Your task to perform on an android device: open app "Etsy: Buy & Sell Unique Items" (install if not already installed) and go to login screen Image 0: 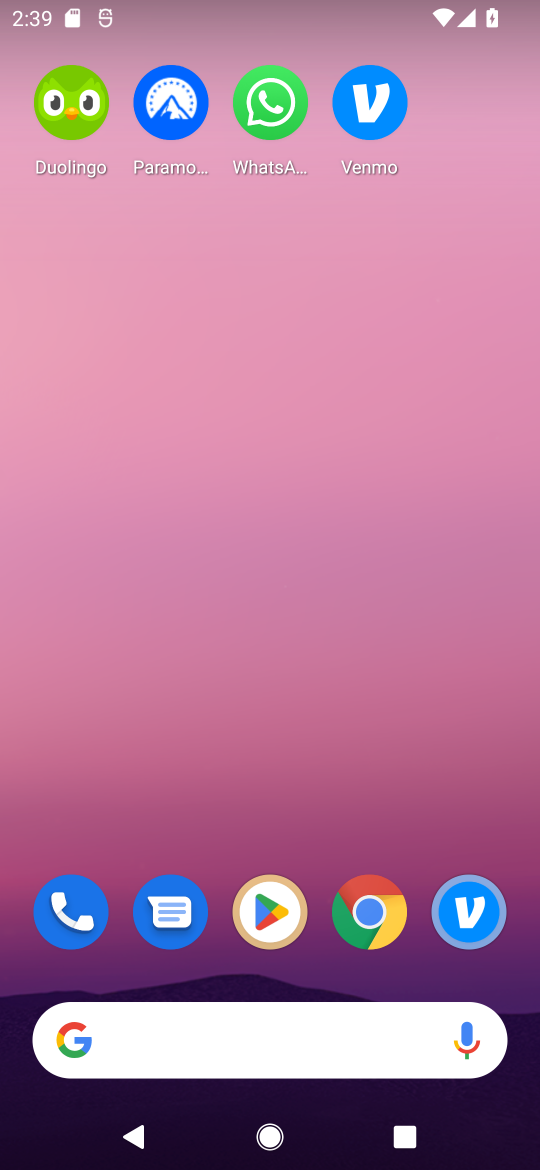
Step 0: drag from (259, 1019) to (288, 475)
Your task to perform on an android device: open app "Etsy: Buy & Sell Unique Items" (install if not already installed) and go to login screen Image 1: 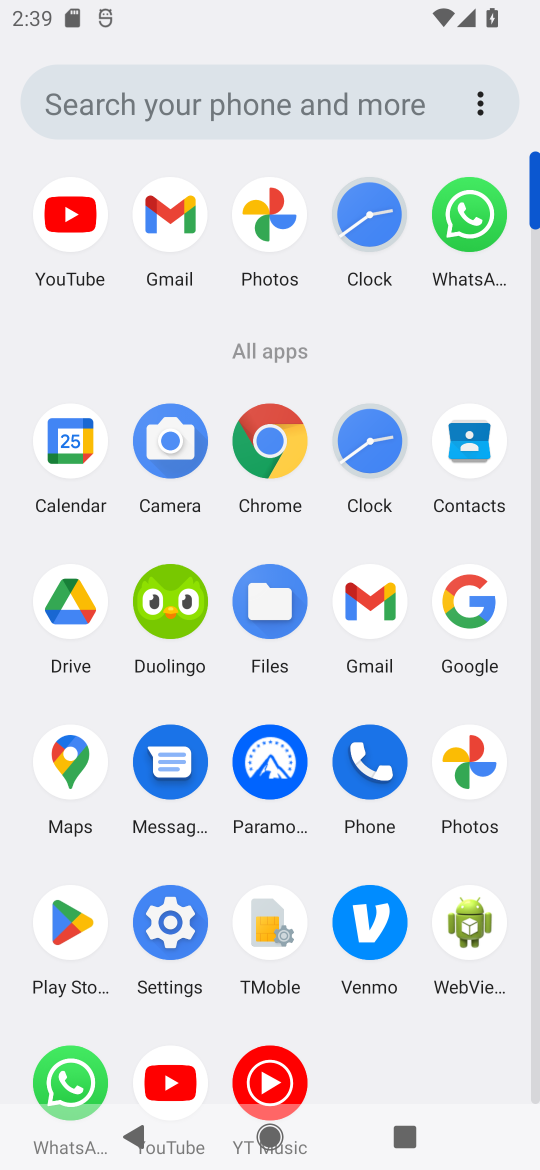
Step 1: click (65, 937)
Your task to perform on an android device: open app "Etsy: Buy & Sell Unique Items" (install if not already installed) and go to login screen Image 2: 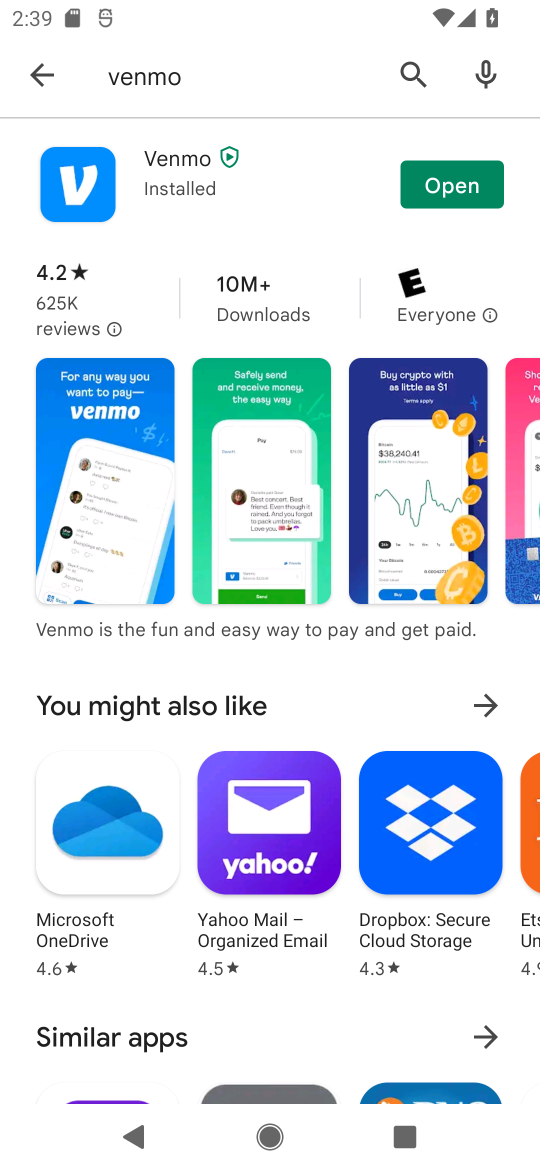
Step 2: click (413, 74)
Your task to perform on an android device: open app "Etsy: Buy & Sell Unique Items" (install if not already installed) and go to login screen Image 3: 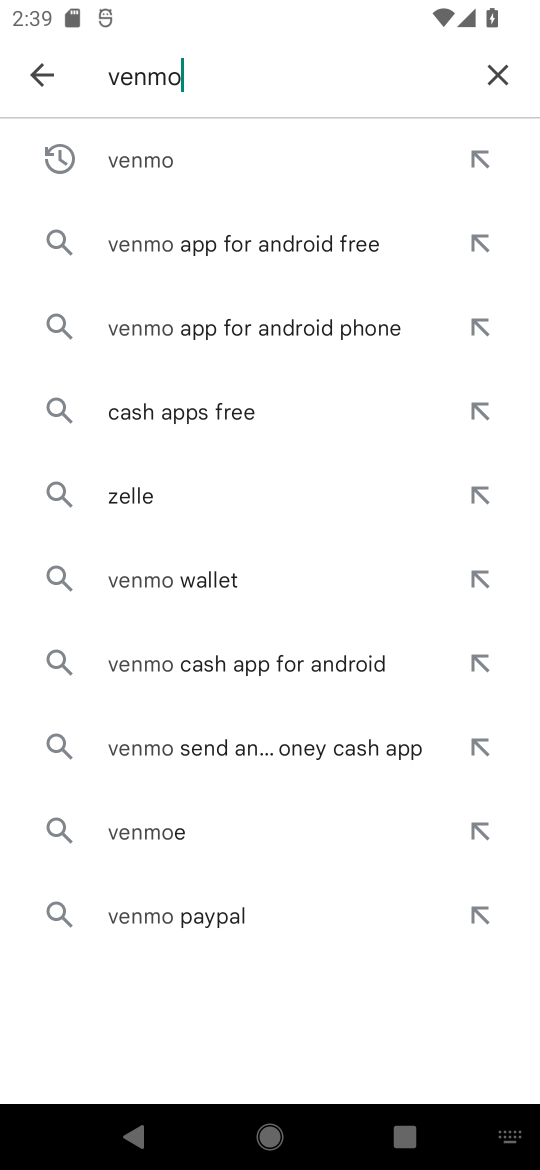
Step 3: click (498, 76)
Your task to perform on an android device: open app "Etsy: Buy & Sell Unique Items" (install if not already installed) and go to login screen Image 4: 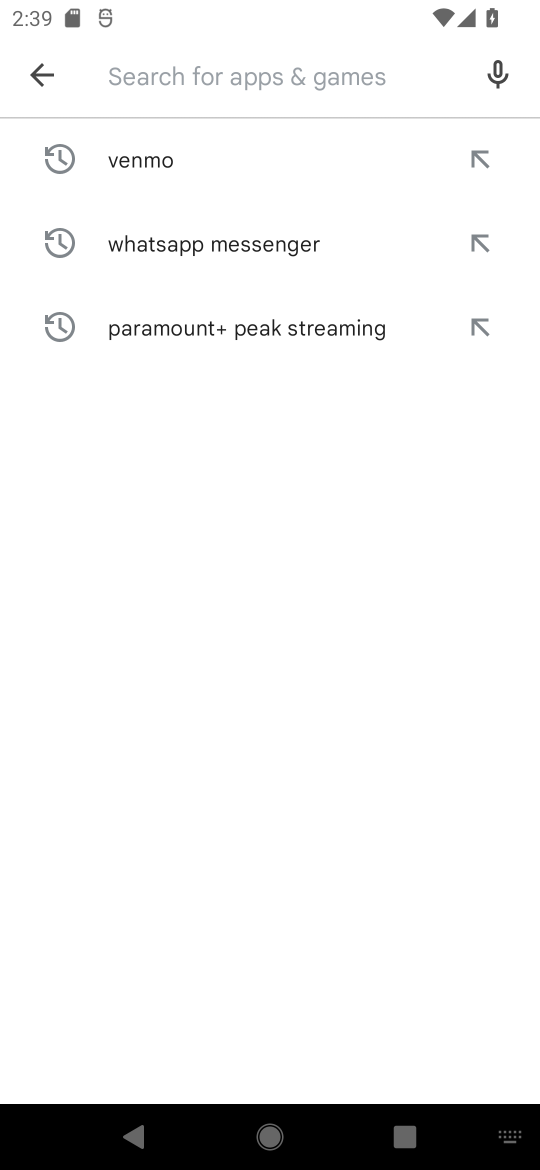
Step 4: type "Etsy: Buy & Sell Unique Items"
Your task to perform on an android device: open app "Etsy: Buy & Sell Unique Items" (install if not already installed) and go to login screen Image 5: 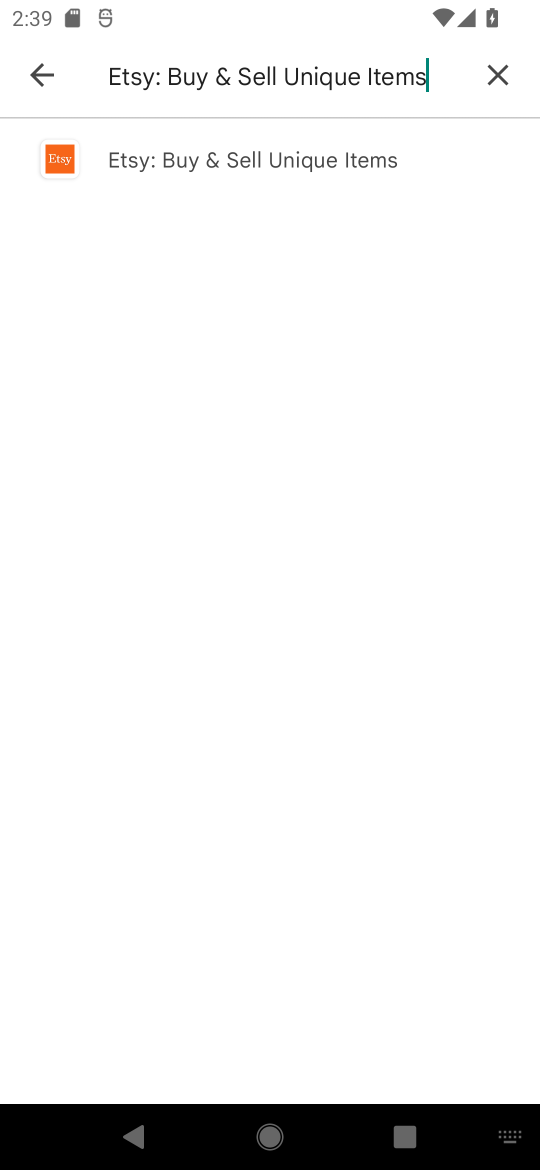
Step 5: click (130, 169)
Your task to perform on an android device: open app "Etsy: Buy & Sell Unique Items" (install if not already installed) and go to login screen Image 6: 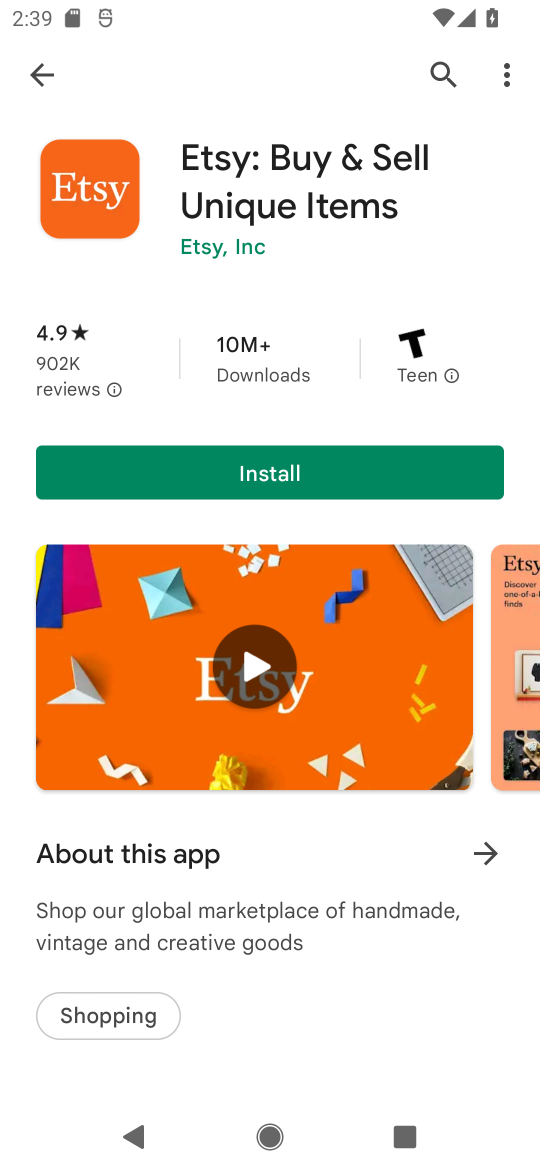
Step 6: click (227, 480)
Your task to perform on an android device: open app "Etsy: Buy & Sell Unique Items" (install if not already installed) and go to login screen Image 7: 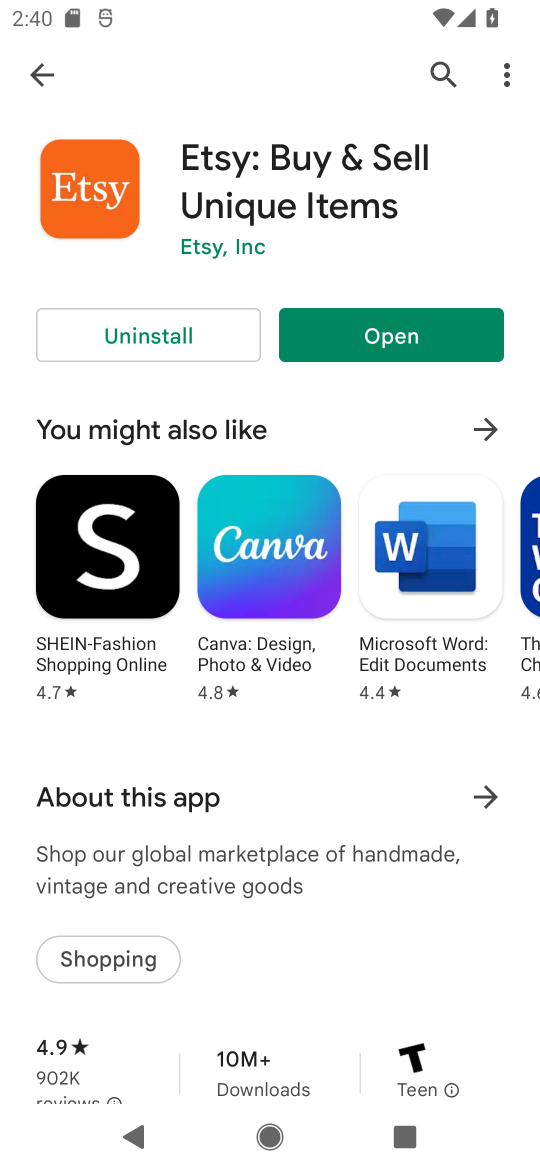
Step 7: click (431, 330)
Your task to perform on an android device: open app "Etsy: Buy & Sell Unique Items" (install if not already installed) and go to login screen Image 8: 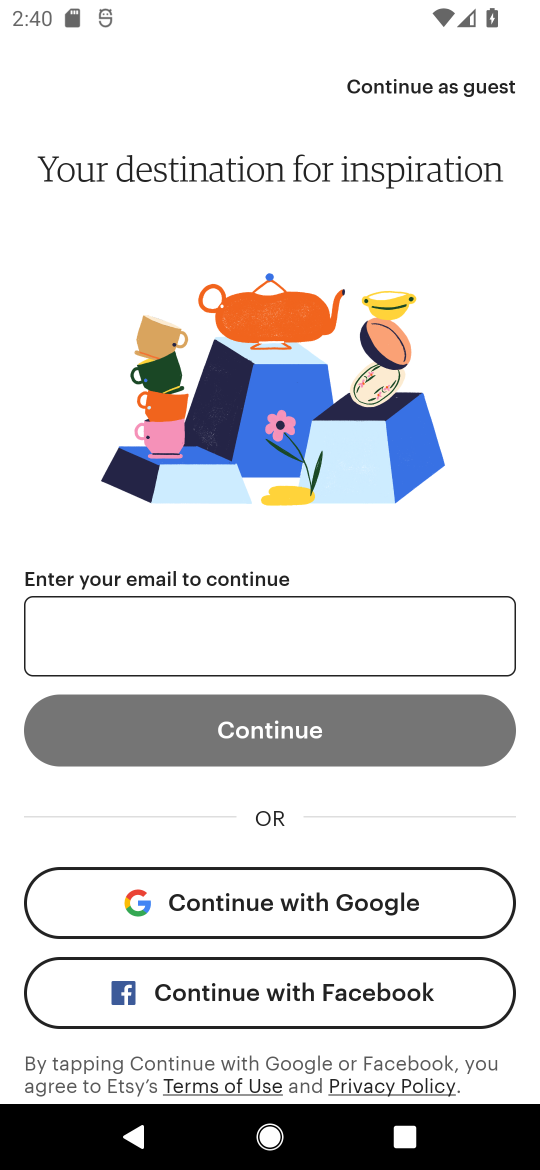
Step 8: task complete